Your task to perform on an android device: set the stopwatch Image 0: 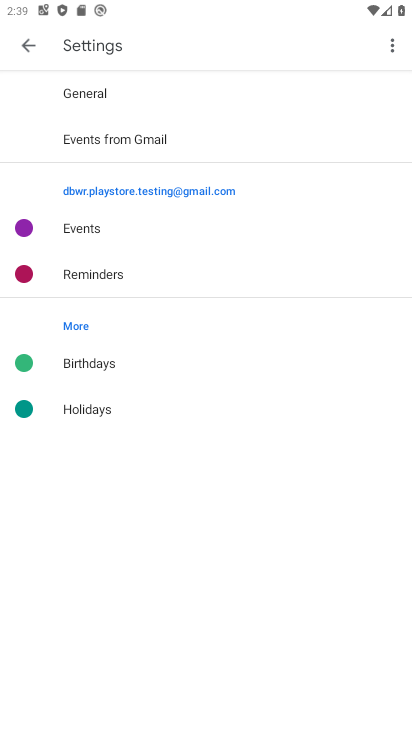
Step 0: press home button
Your task to perform on an android device: set the stopwatch Image 1: 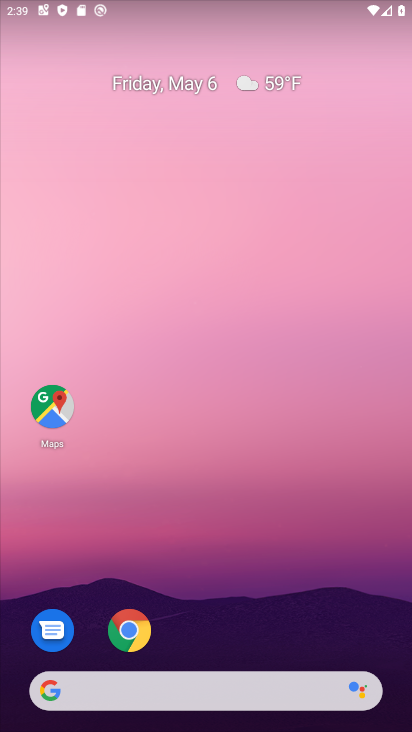
Step 1: drag from (214, 629) to (210, 248)
Your task to perform on an android device: set the stopwatch Image 2: 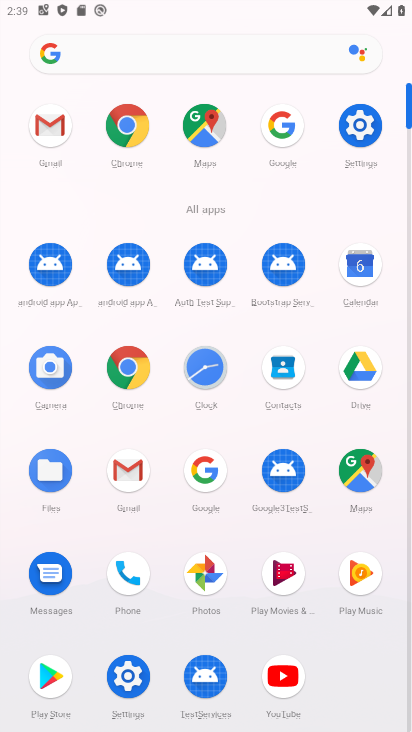
Step 2: click (208, 387)
Your task to perform on an android device: set the stopwatch Image 3: 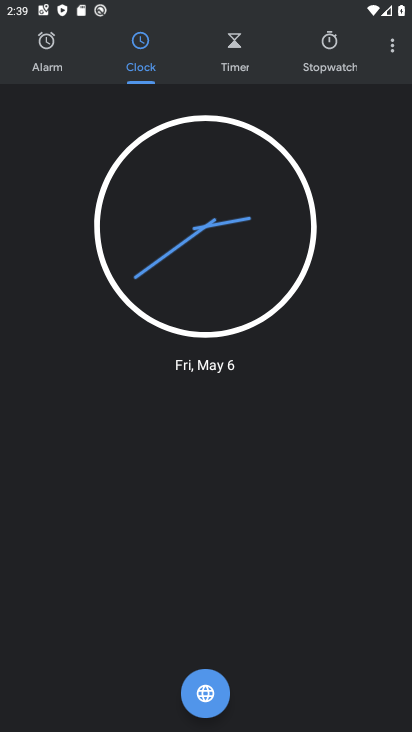
Step 3: click (317, 48)
Your task to perform on an android device: set the stopwatch Image 4: 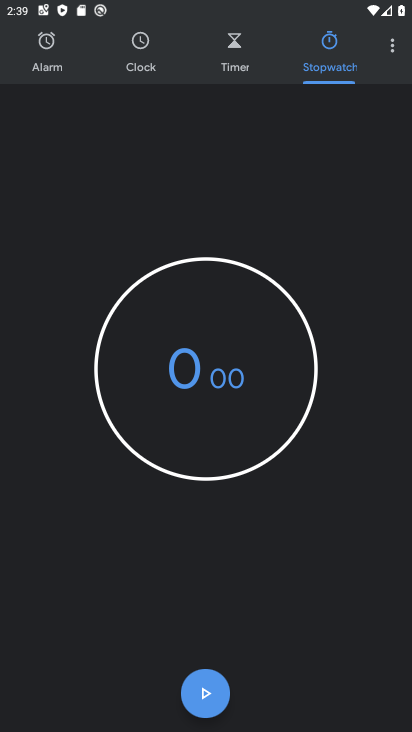
Step 4: click (206, 690)
Your task to perform on an android device: set the stopwatch Image 5: 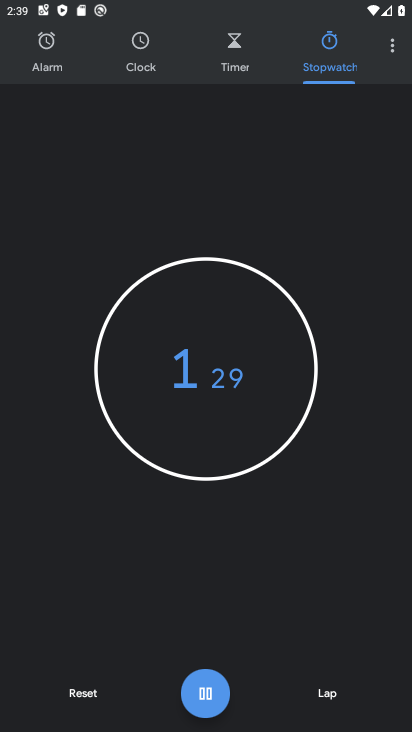
Step 5: task complete